Your task to perform on an android device: toggle location history Image 0: 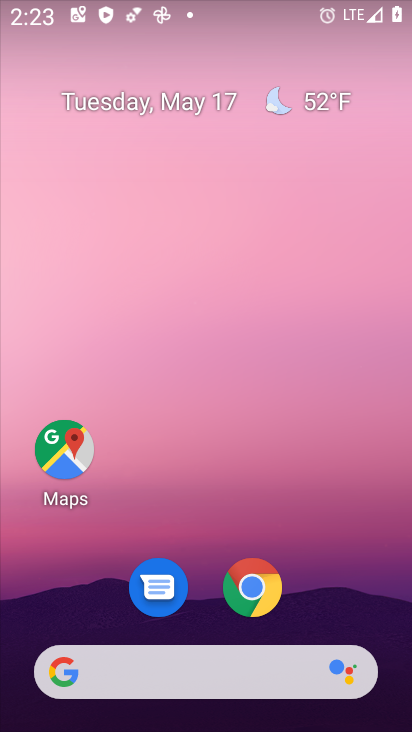
Step 0: drag from (346, 606) to (313, 86)
Your task to perform on an android device: toggle location history Image 1: 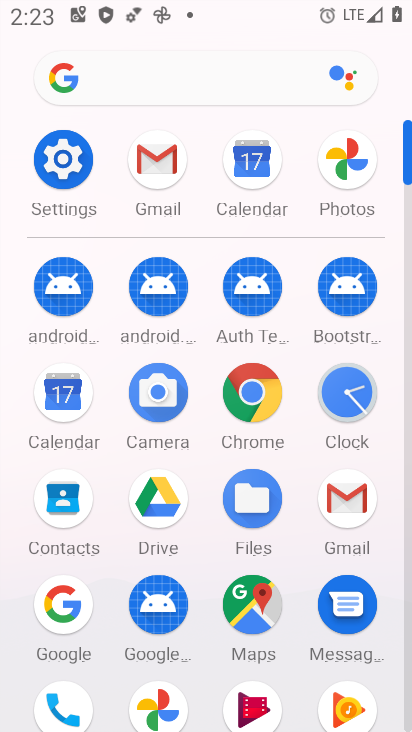
Step 1: click (82, 193)
Your task to perform on an android device: toggle location history Image 2: 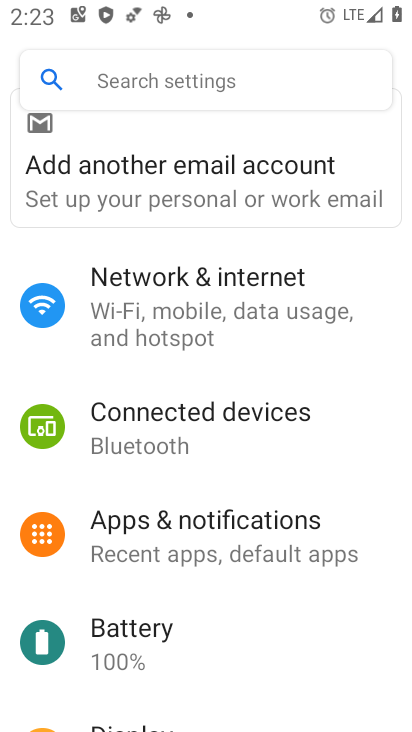
Step 2: drag from (176, 586) to (216, 206)
Your task to perform on an android device: toggle location history Image 3: 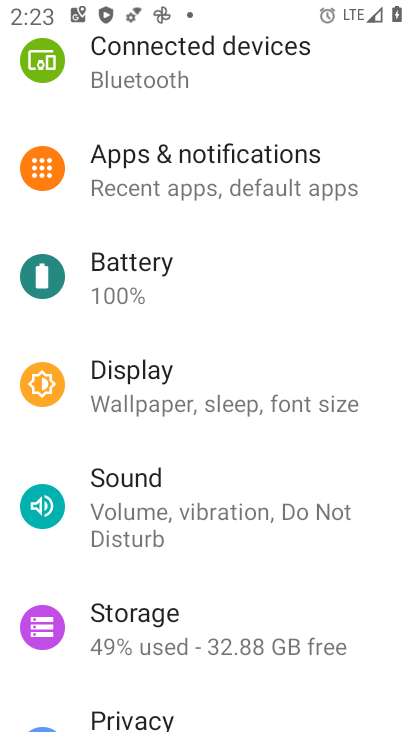
Step 3: drag from (131, 652) to (173, 208)
Your task to perform on an android device: toggle location history Image 4: 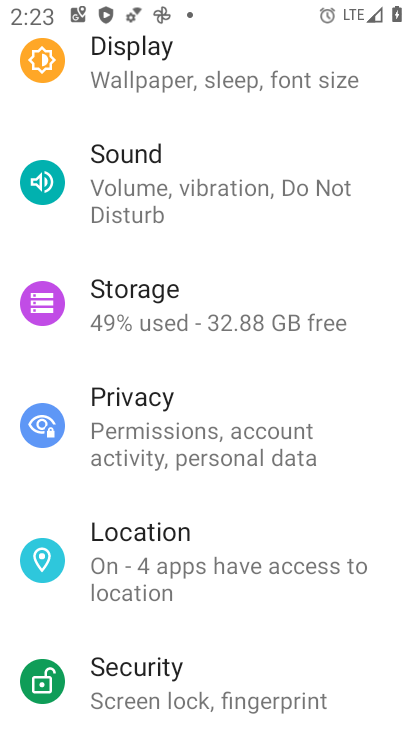
Step 4: click (167, 540)
Your task to perform on an android device: toggle location history Image 5: 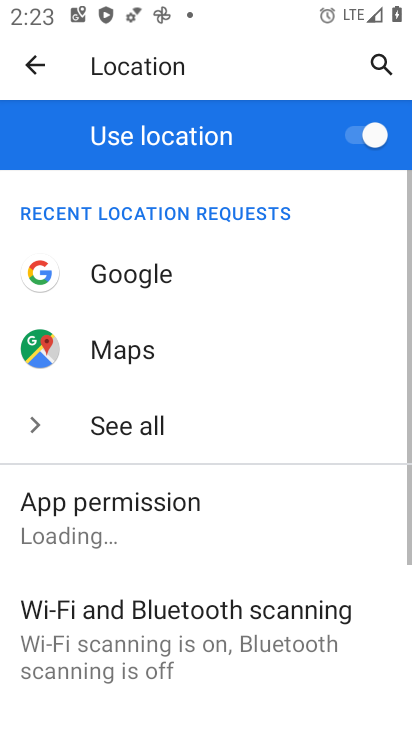
Step 5: drag from (201, 549) to (204, 257)
Your task to perform on an android device: toggle location history Image 6: 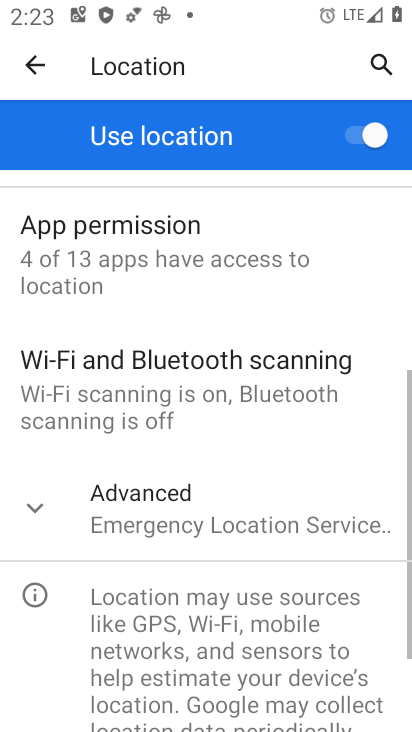
Step 6: click (177, 632)
Your task to perform on an android device: toggle location history Image 7: 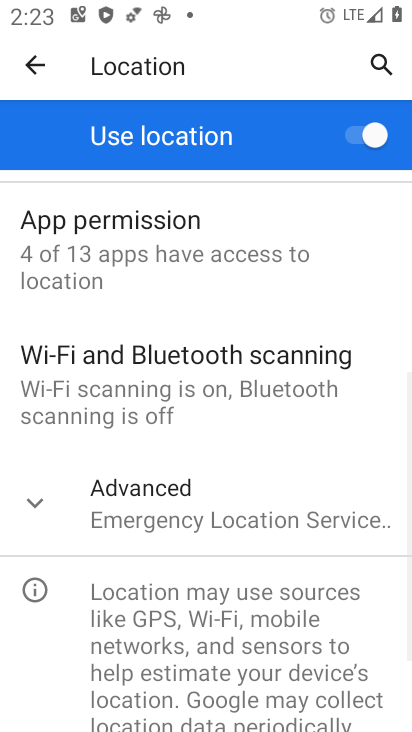
Step 7: click (186, 530)
Your task to perform on an android device: toggle location history Image 8: 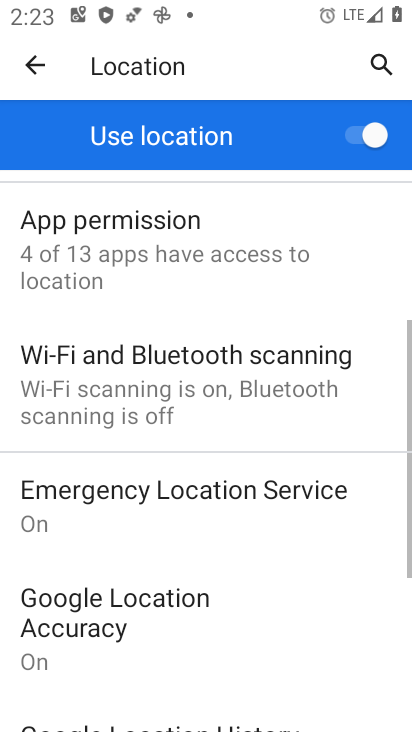
Step 8: drag from (186, 639) to (200, 360)
Your task to perform on an android device: toggle location history Image 9: 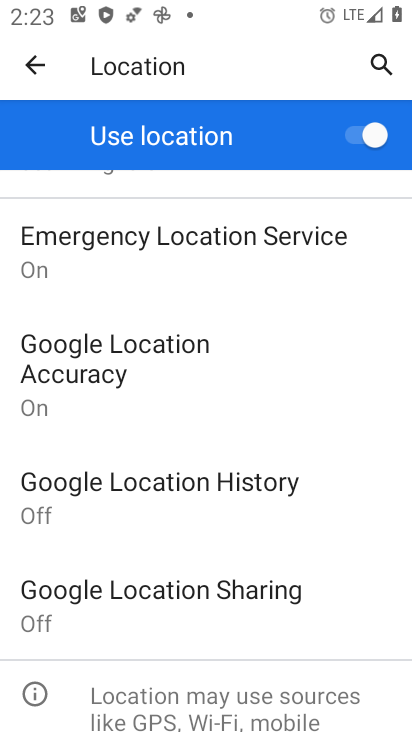
Step 9: click (166, 489)
Your task to perform on an android device: toggle location history Image 10: 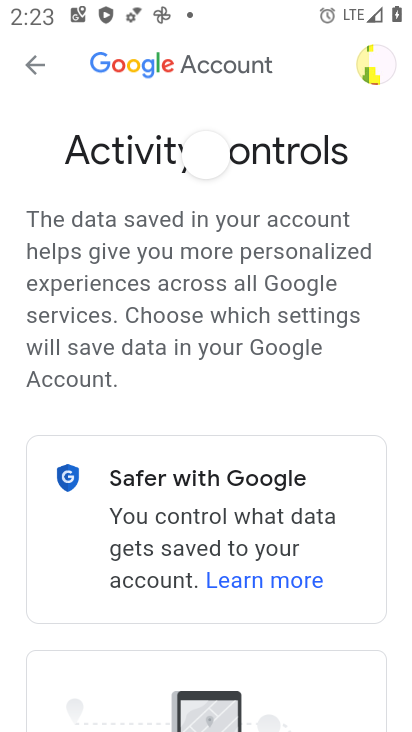
Step 10: drag from (273, 536) to (275, 158)
Your task to perform on an android device: toggle location history Image 11: 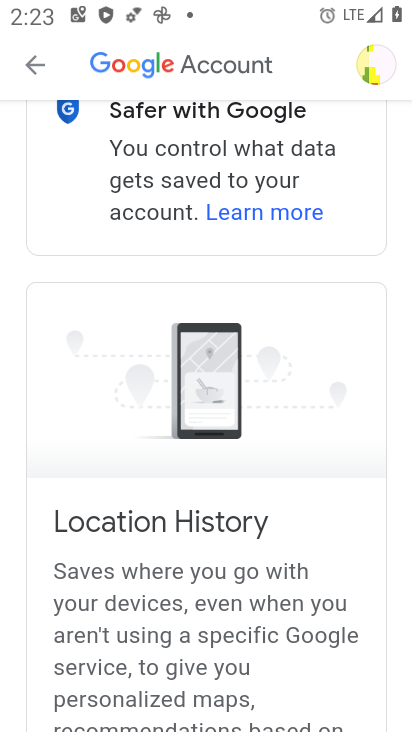
Step 11: drag from (256, 624) to (301, 435)
Your task to perform on an android device: toggle location history Image 12: 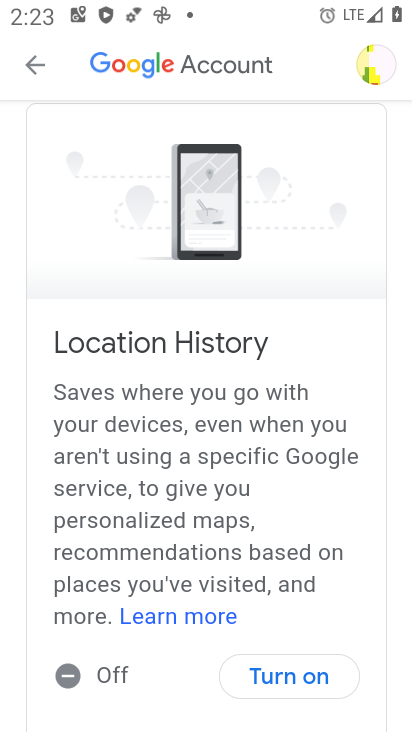
Step 12: click (281, 679)
Your task to perform on an android device: toggle location history Image 13: 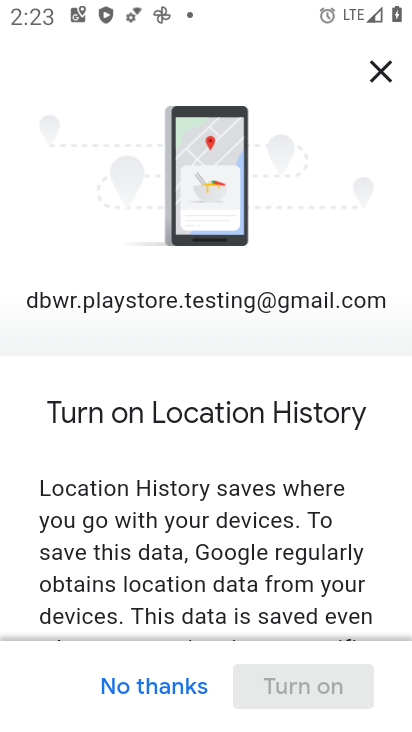
Step 13: task complete